Your task to perform on an android device: Go to wifi settings Image 0: 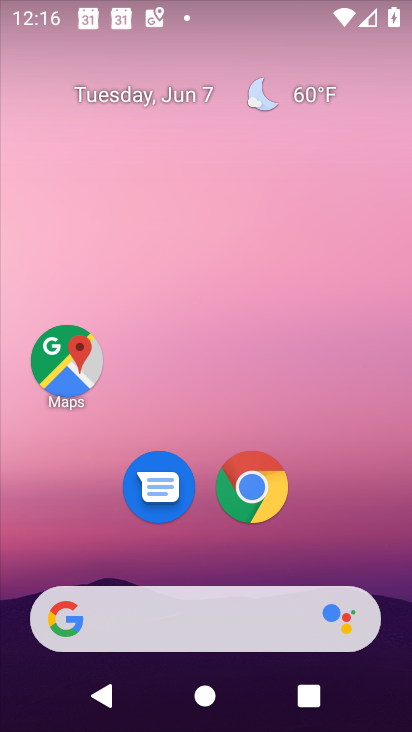
Step 0: drag from (371, 545) to (305, 117)
Your task to perform on an android device: Go to wifi settings Image 1: 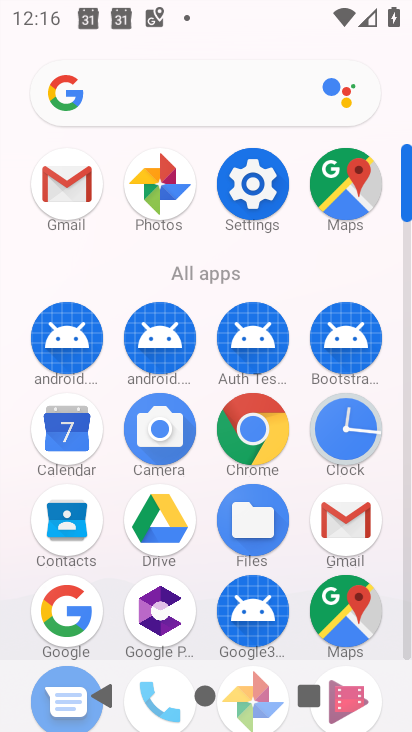
Step 1: click (249, 184)
Your task to perform on an android device: Go to wifi settings Image 2: 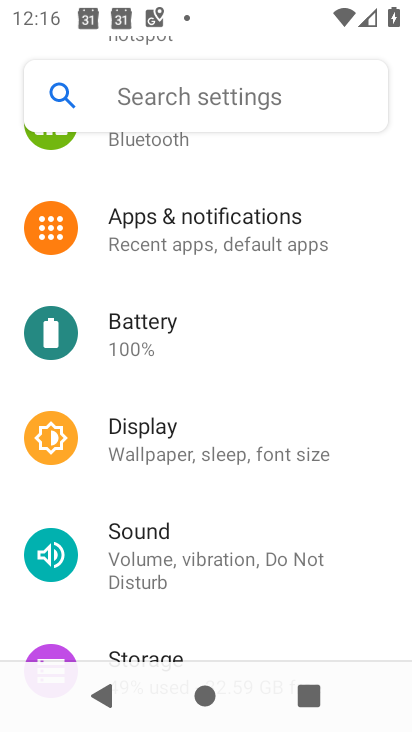
Step 2: drag from (215, 176) to (201, 550)
Your task to perform on an android device: Go to wifi settings Image 3: 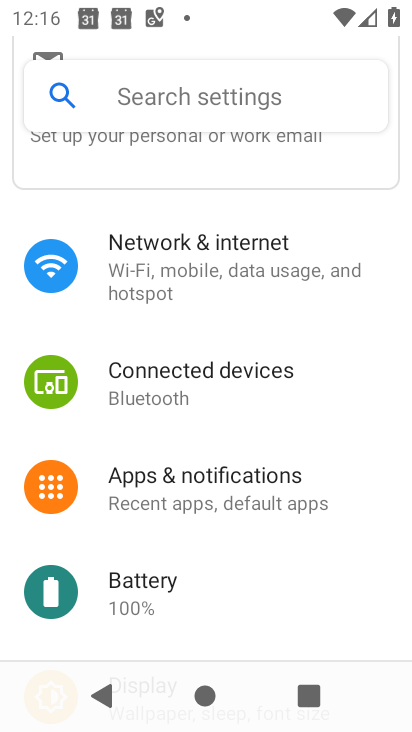
Step 3: click (174, 289)
Your task to perform on an android device: Go to wifi settings Image 4: 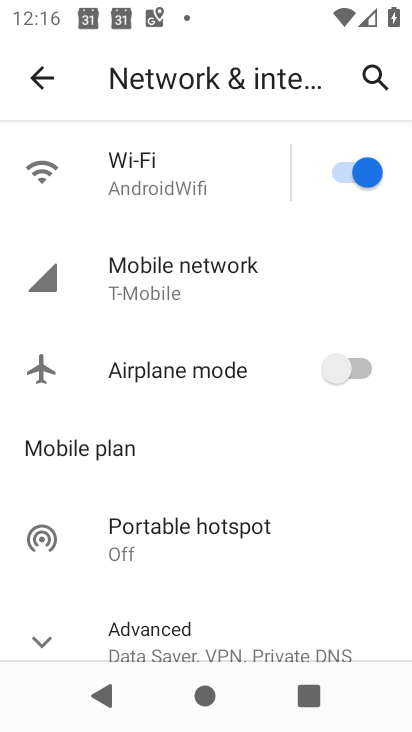
Step 4: click (152, 184)
Your task to perform on an android device: Go to wifi settings Image 5: 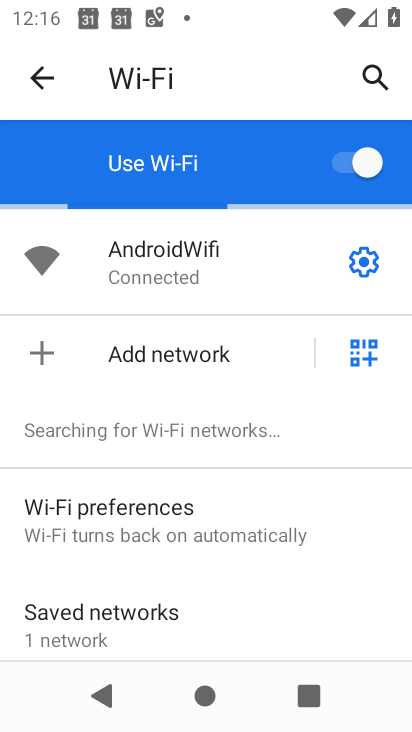
Step 5: task complete